Your task to perform on an android device: turn on bluetooth scan Image 0: 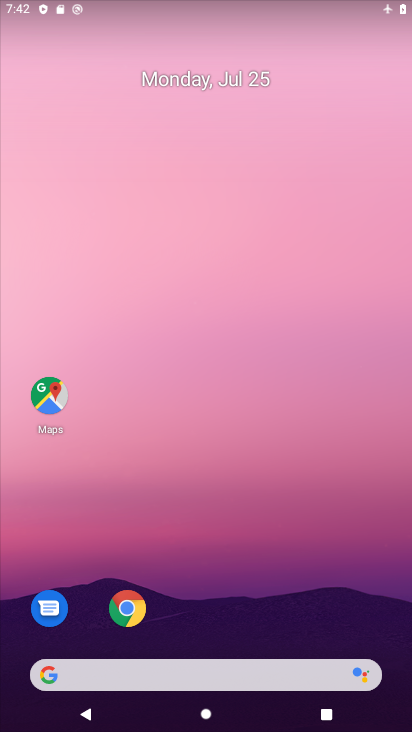
Step 0: click (307, 146)
Your task to perform on an android device: turn on bluetooth scan Image 1: 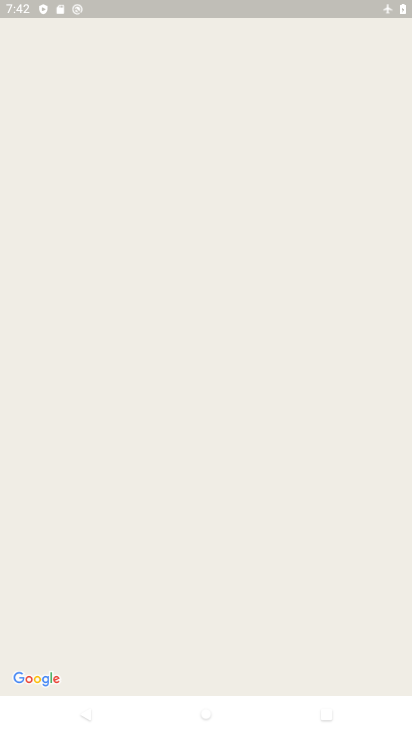
Step 1: press home button
Your task to perform on an android device: turn on bluetooth scan Image 2: 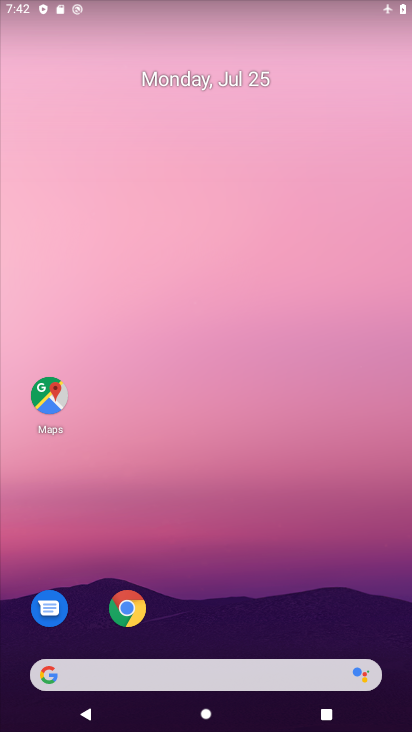
Step 2: drag from (248, 554) to (277, 0)
Your task to perform on an android device: turn on bluetooth scan Image 3: 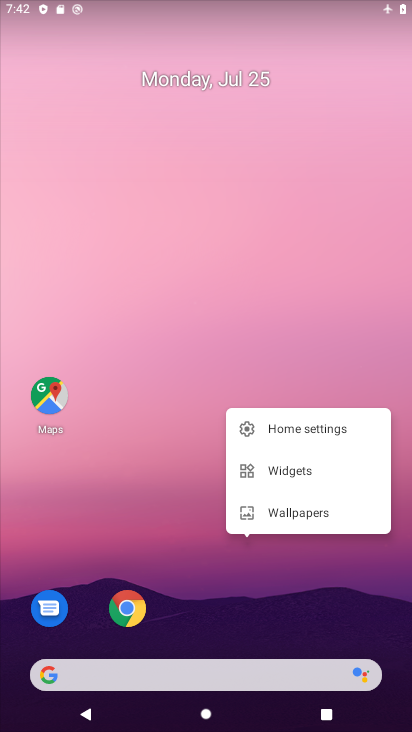
Step 3: click (89, 455)
Your task to perform on an android device: turn on bluetooth scan Image 4: 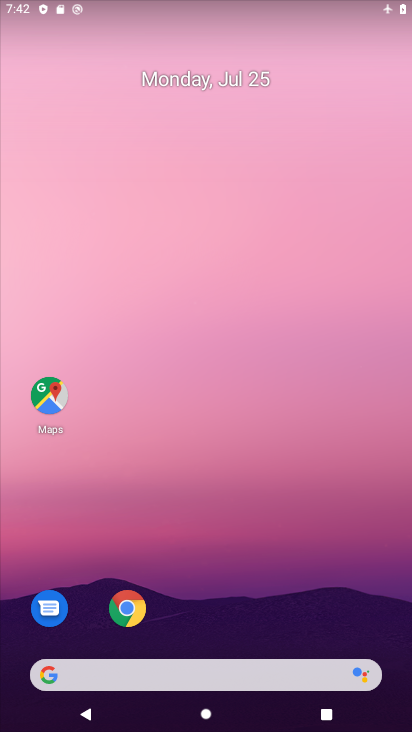
Step 4: drag from (314, 630) to (338, 20)
Your task to perform on an android device: turn on bluetooth scan Image 5: 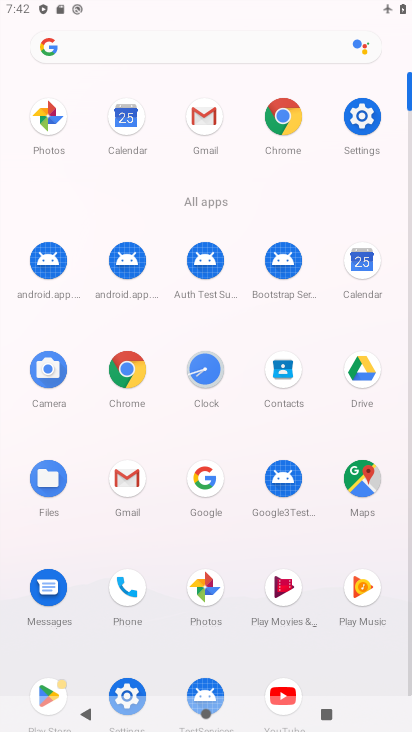
Step 5: click (360, 113)
Your task to perform on an android device: turn on bluetooth scan Image 6: 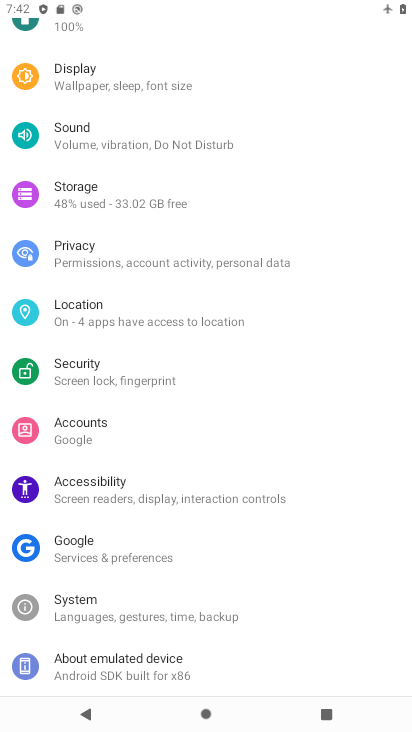
Step 6: drag from (172, 183) to (174, 431)
Your task to perform on an android device: turn on bluetooth scan Image 7: 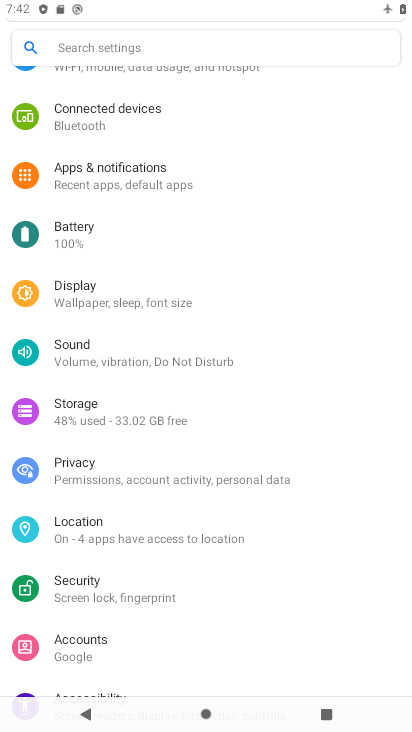
Step 7: drag from (181, 137) to (149, 385)
Your task to perform on an android device: turn on bluetooth scan Image 8: 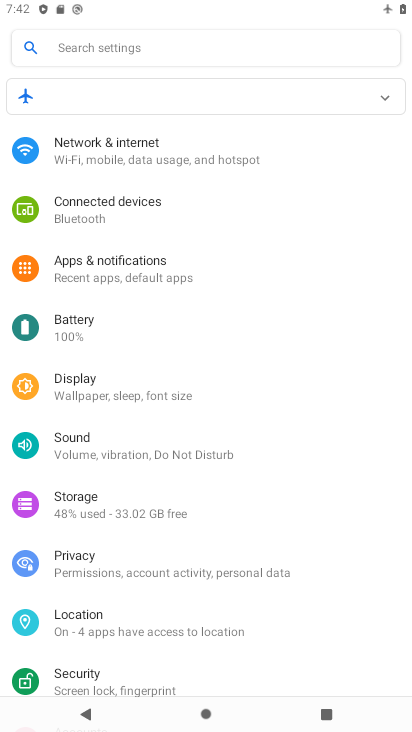
Step 8: click (130, 136)
Your task to perform on an android device: turn on bluetooth scan Image 9: 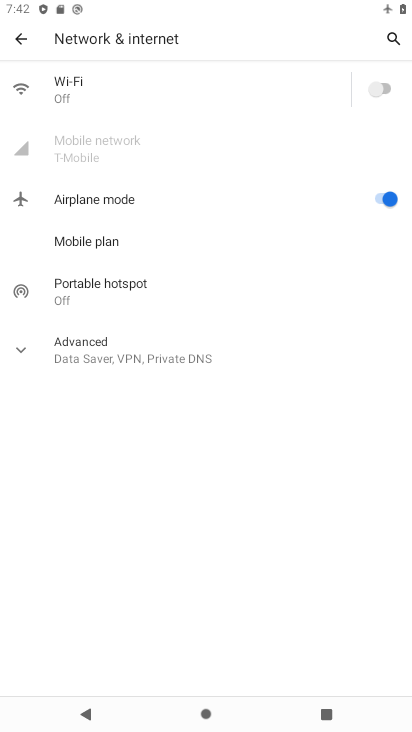
Step 9: click (15, 33)
Your task to perform on an android device: turn on bluetooth scan Image 10: 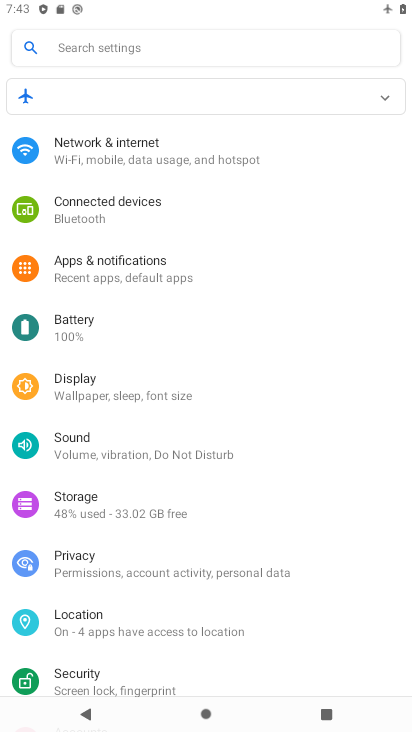
Step 10: click (129, 614)
Your task to perform on an android device: turn on bluetooth scan Image 11: 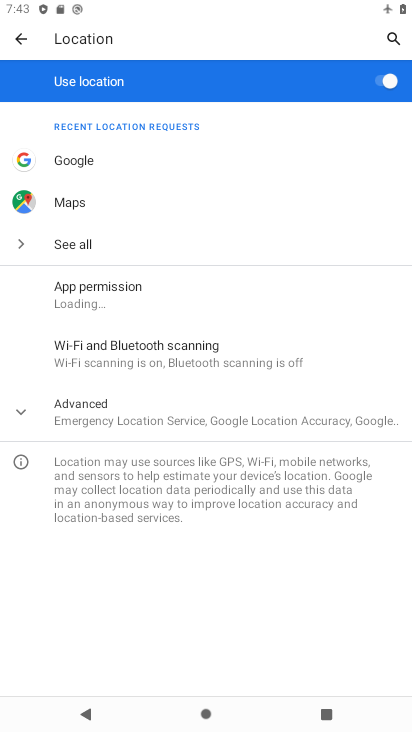
Step 11: click (151, 351)
Your task to perform on an android device: turn on bluetooth scan Image 12: 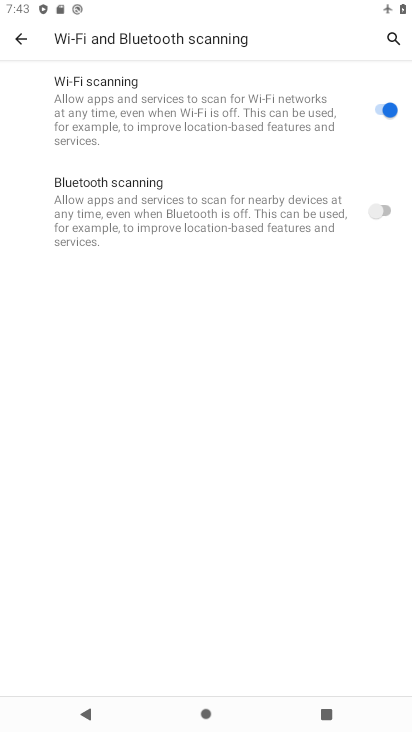
Step 12: click (218, 231)
Your task to perform on an android device: turn on bluetooth scan Image 13: 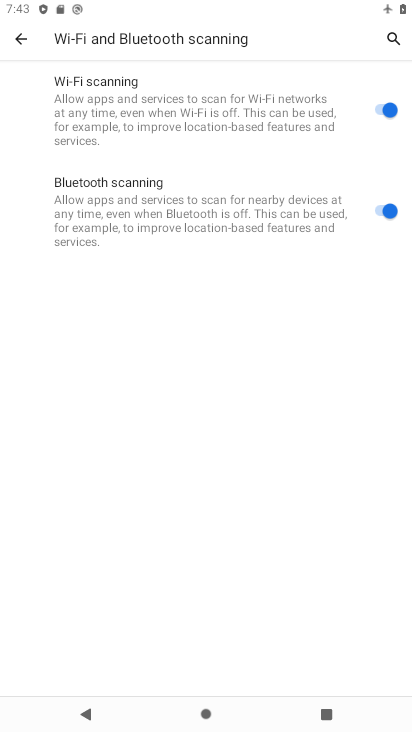
Step 13: task complete